Your task to perform on an android device: Add "beats solo 3" to the cart on ebay Image 0: 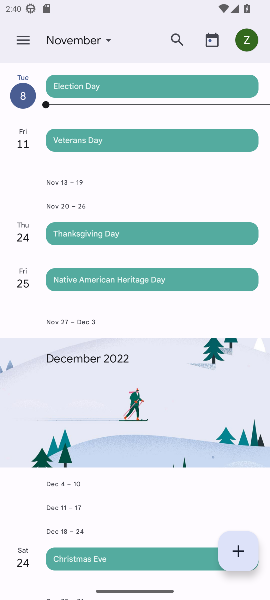
Step 0: press home button
Your task to perform on an android device: Add "beats solo 3" to the cart on ebay Image 1: 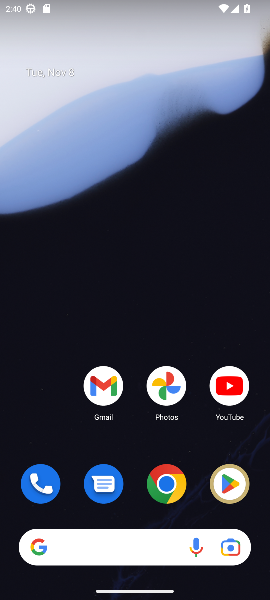
Step 1: click (166, 477)
Your task to perform on an android device: Add "beats solo 3" to the cart on ebay Image 2: 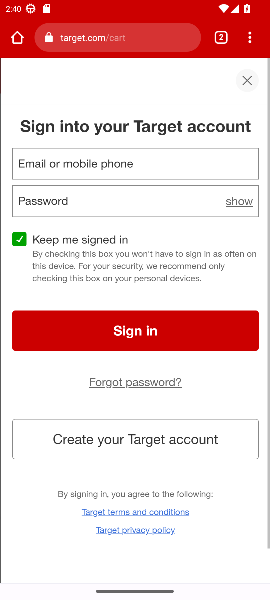
Step 2: click (161, 28)
Your task to perform on an android device: Add "beats solo 3" to the cart on ebay Image 3: 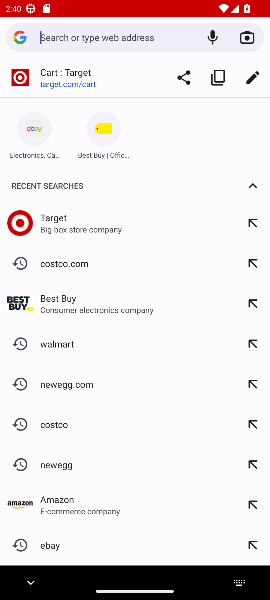
Step 3: click (41, 549)
Your task to perform on an android device: Add "beats solo 3" to the cart on ebay Image 4: 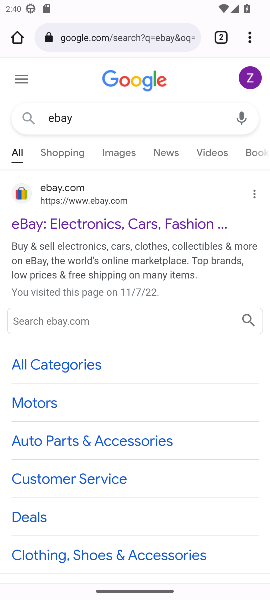
Step 4: click (51, 223)
Your task to perform on an android device: Add "beats solo 3" to the cart on ebay Image 5: 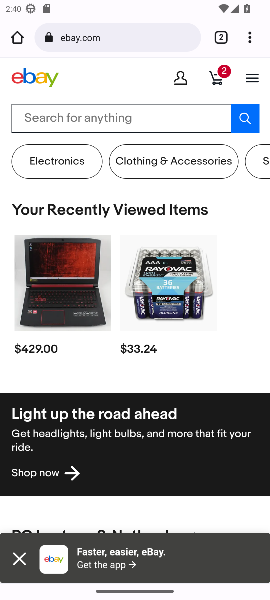
Step 5: click (155, 123)
Your task to perform on an android device: Add "beats solo 3" to the cart on ebay Image 6: 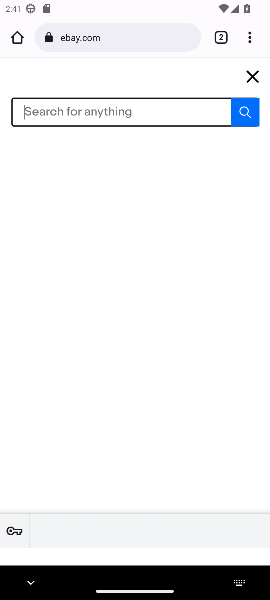
Step 6: type "beats solo 3"
Your task to perform on an android device: Add "beats solo 3" to the cart on ebay Image 7: 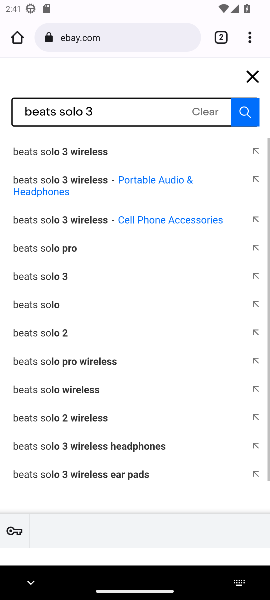
Step 7: click (251, 113)
Your task to perform on an android device: Add "beats solo 3" to the cart on ebay Image 8: 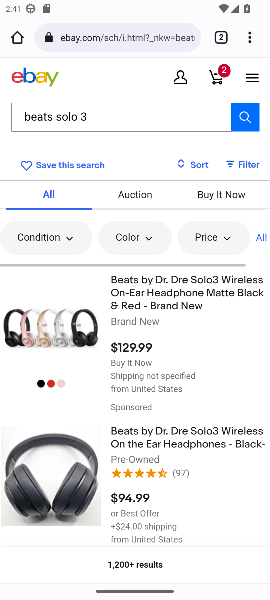
Step 8: click (225, 283)
Your task to perform on an android device: Add "beats solo 3" to the cart on ebay Image 9: 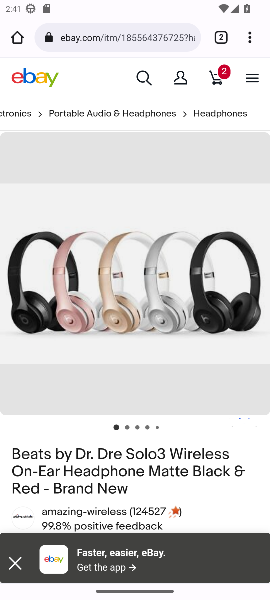
Step 9: drag from (137, 479) to (141, 67)
Your task to perform on an android device: Add "beats solo 3" to the cart on ebay Image 10: 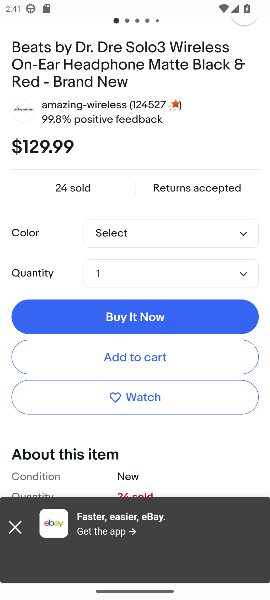
Step 10: click (71, 367)
Your task to perform on an android device: Add "beats solo 3" to the cart on ebay Image 11: 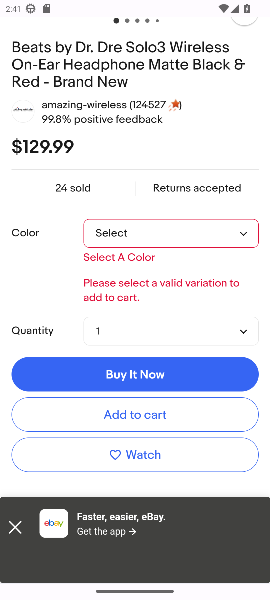
Step 11: click (143, 239)
Your task to perform on an android device: Add "beats solo 3" to the cart on ebay Image 12: 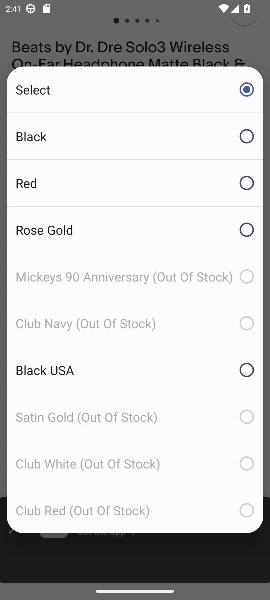
Step 12: click (143, 239)
Your task to perform on an android device: Add "beats solo 3" to the cart on ebay Image 13: 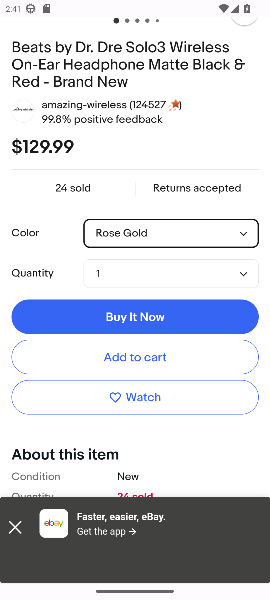
Step 13: click (111, 355)
Your task to perform on an android device: Add "beats solo 3" to the cart on ebay Image 14: 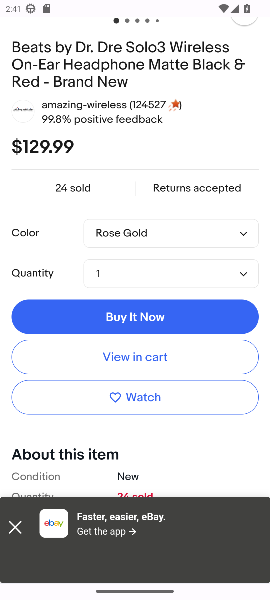
Step 14: task complete